Your task to perform on an android device: Open CNN.com Image 0: 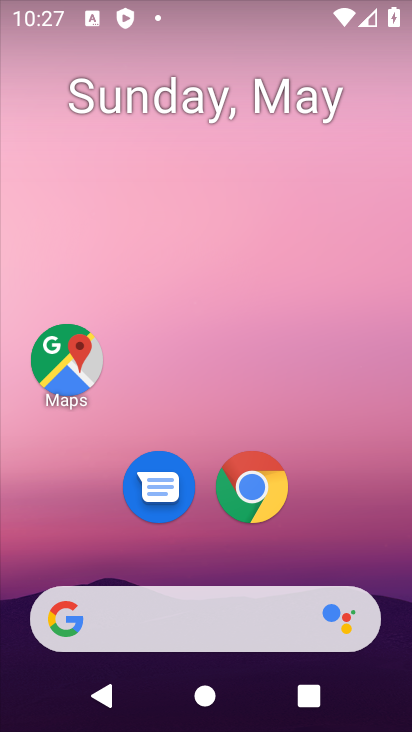
Step 0: drag from (252, 579) to (248, 48)
Your task to perform on an android device: Open CNN.com Image 1: 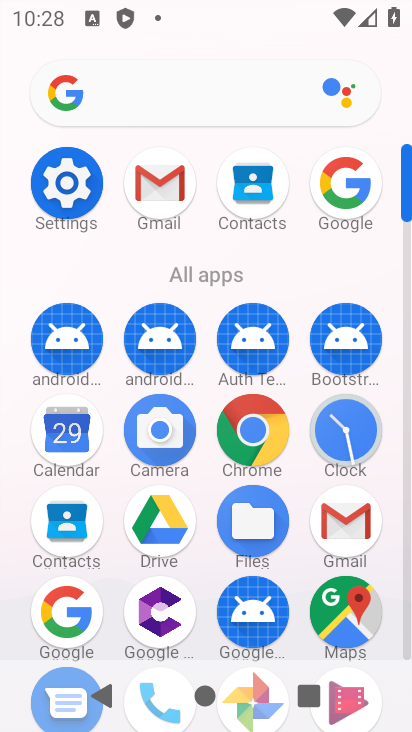
Step 1: click (234, 434)
Your task to perform on an android device: Open CNN.com Image 2: 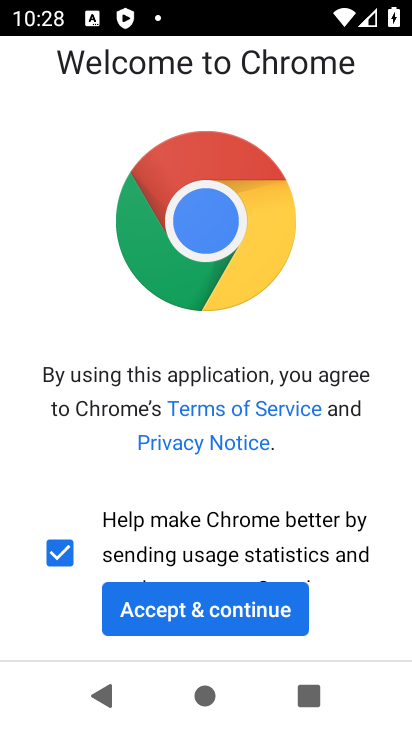
Step 2: click (244, 604)
Your task to perform on an android device: Open CNN.com Image 3: 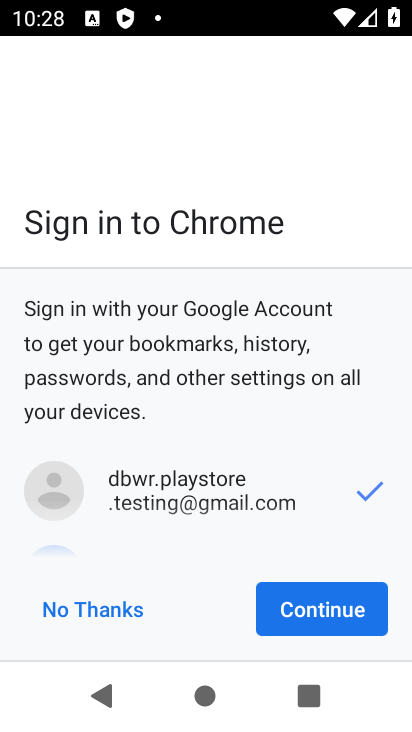
Step 3: click (331, 614)
Your task to perform on an android device: Open CNN.com Image 4: 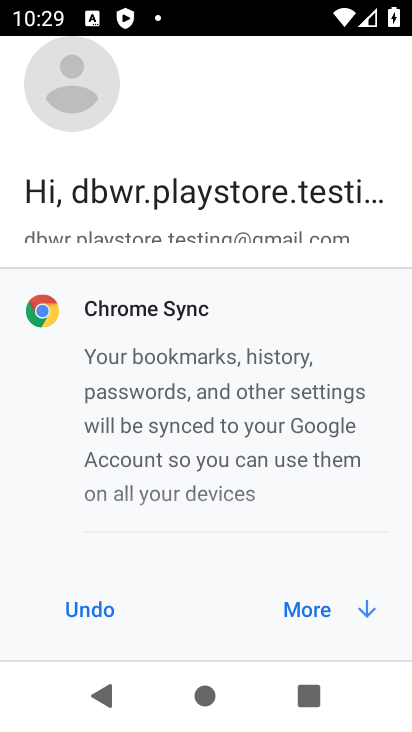
Step 4: click (333, 611)
Your task to perform on an android device: Open CNN.com Image 5: 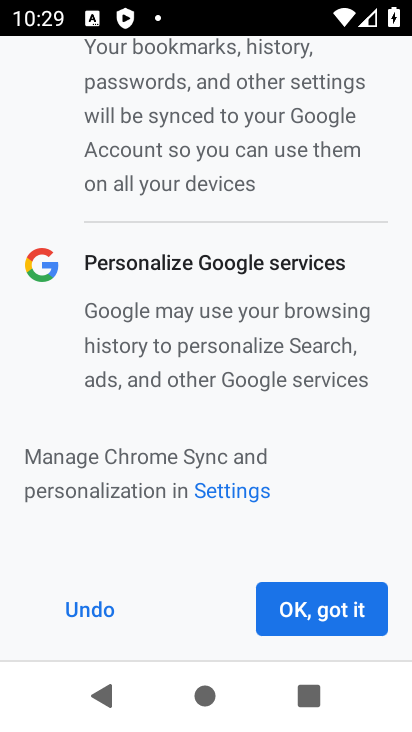
Step 5: click (356, 623)
Your task to perform on an android device: Open CNN.com Image 6: 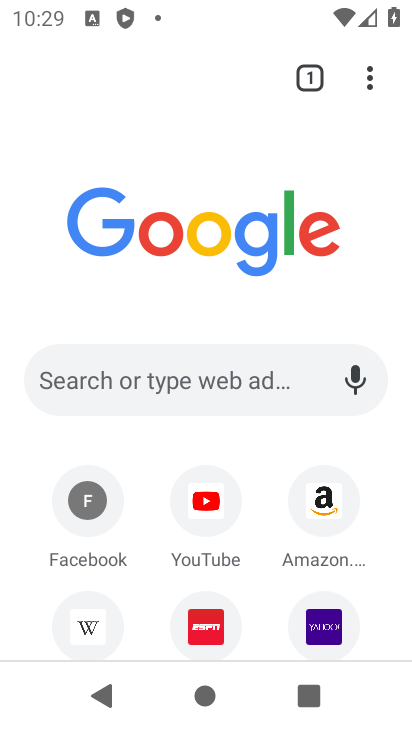
Step 6: drag from (249, 564) to (289, 400)
Your task to perform on an android device: Open CNN.com Image 7: 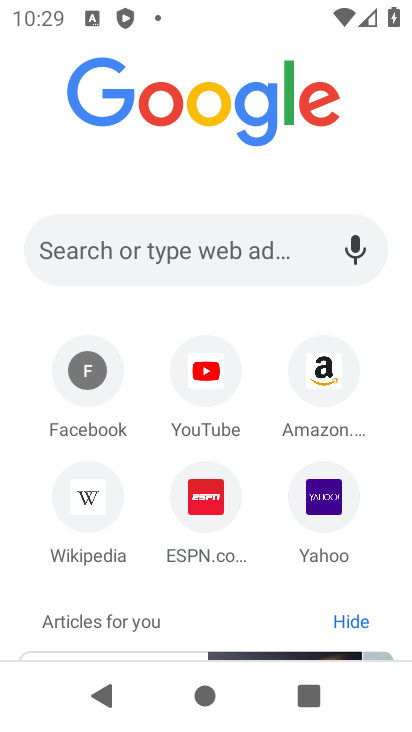
Step 7: click (182, 261)
Your task to perform on an android device: Open CNN.com Image 8: 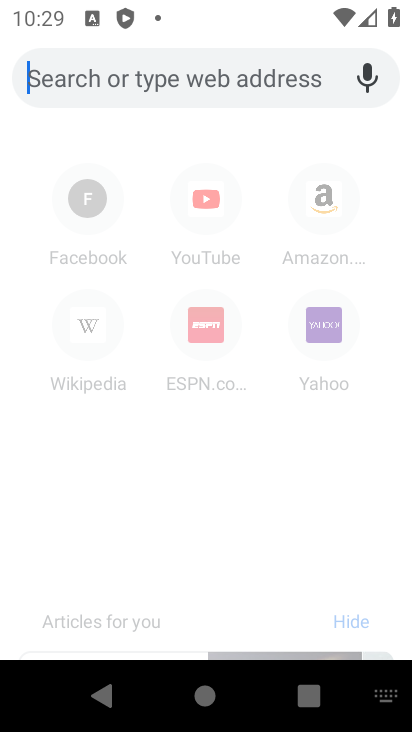
Step 8: type "cnn"
Your task to perform on an android device: Open CNN.com Image 9: 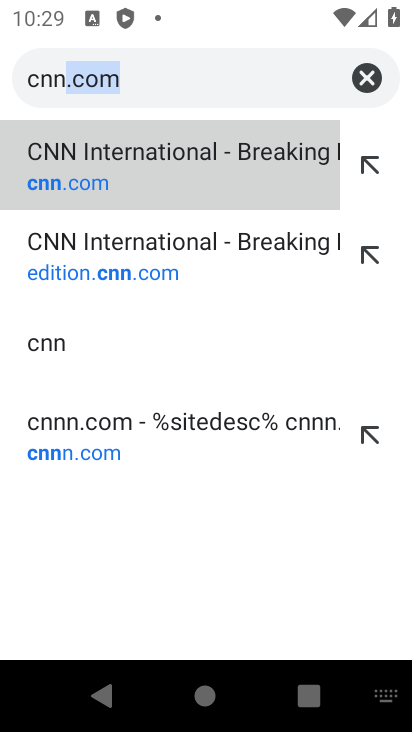
Step 9: click (145, 182)
Your task to perform on an android device: Open CNN.com Image 10: 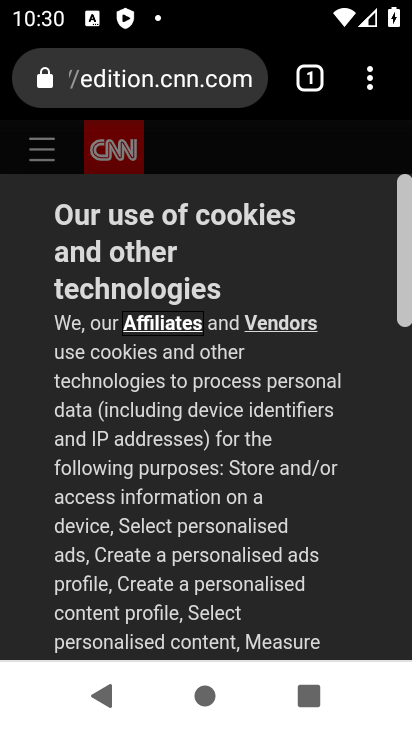
Step 10: task complete